Your task to perform on an android device: Open internet settings Image 0: 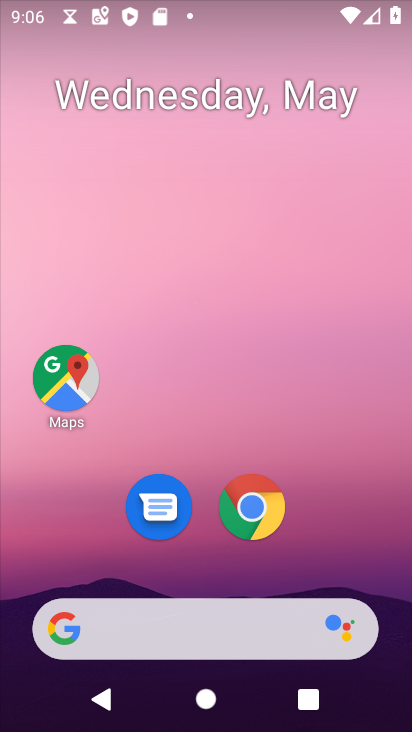
Step 0: drag from (405, 603) to (316, 161)
Your task to perform on an android device: Open internet settings Image 1: 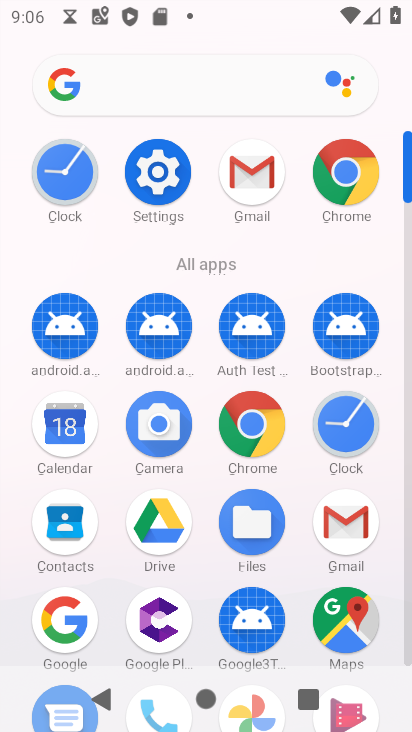
Step 1: click (160, 174)
Your task to perform on an android device: Open internet settings Image 2: 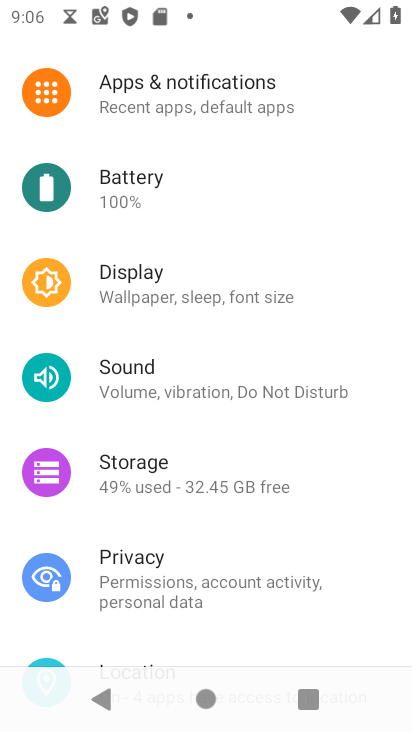
Step 2: drag from (262, 138) to (289, 563)
Your task to perform on an android device: Open internet settings Image 3: 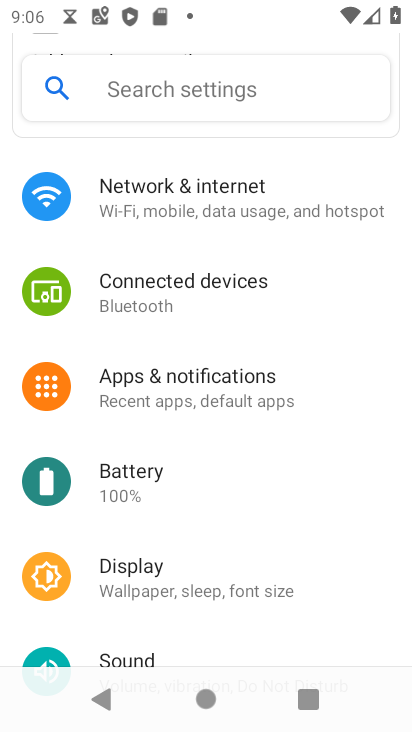
Step 3: click (254, 207)
Your task to perform on an android device: Open internet settings Image 4: 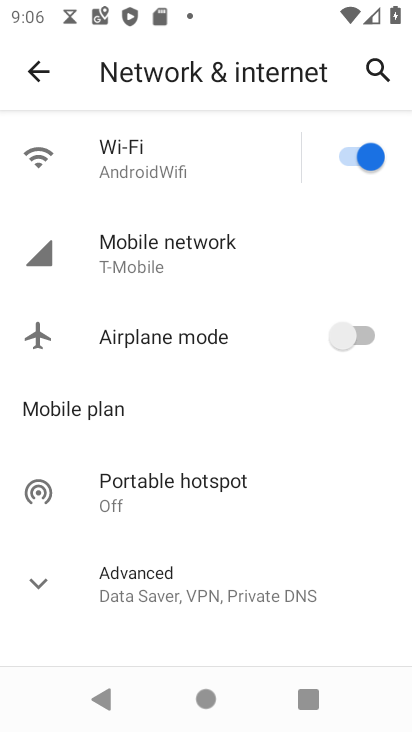
Step 4: task complete